Your task to perform on an android device: Open sound settings Image 0: 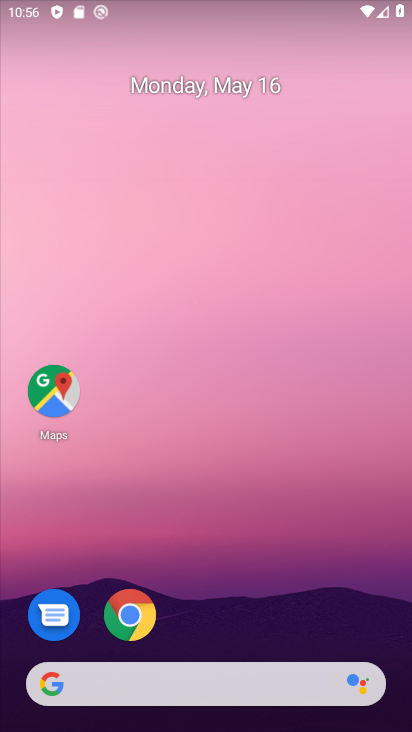
Step 0: drag from (232, 492) to (253, 83)
Your task to perform on an android device: Open sound settings Image 1: 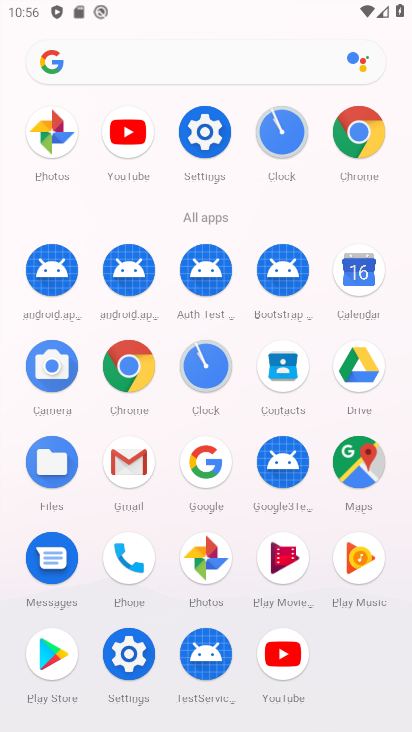
Step 1: click (206, 131)
Your task to perform on an android device: Open sound settings Image 2: 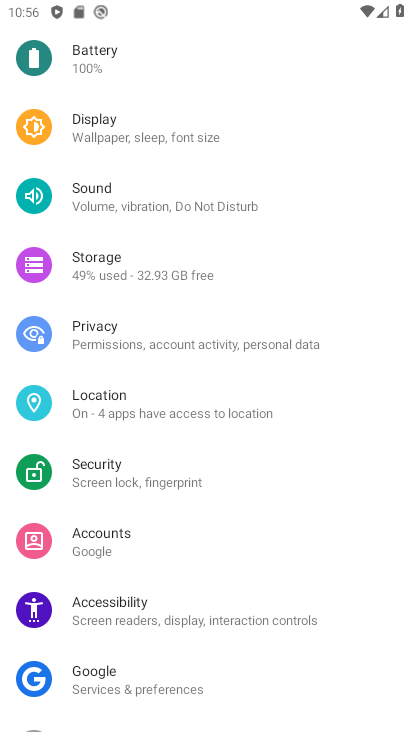
Step 2: click (203, 203)
Your task to perform on an android device: Open sound settings Image 3: 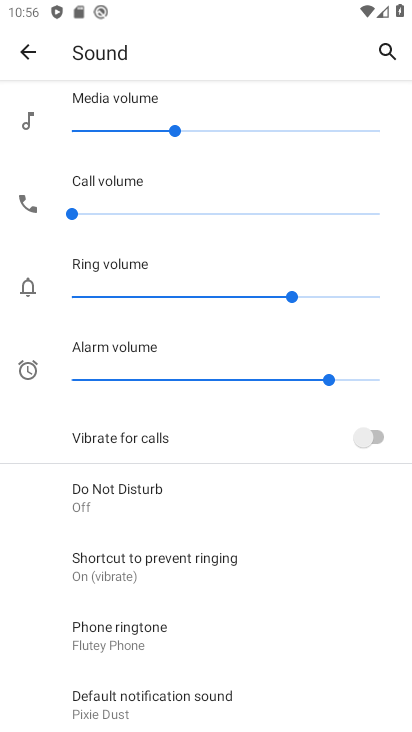
Step 3: task complete